Your task to perform on an android device: open app "VLC for Android" (install if not already installed) Image 0: 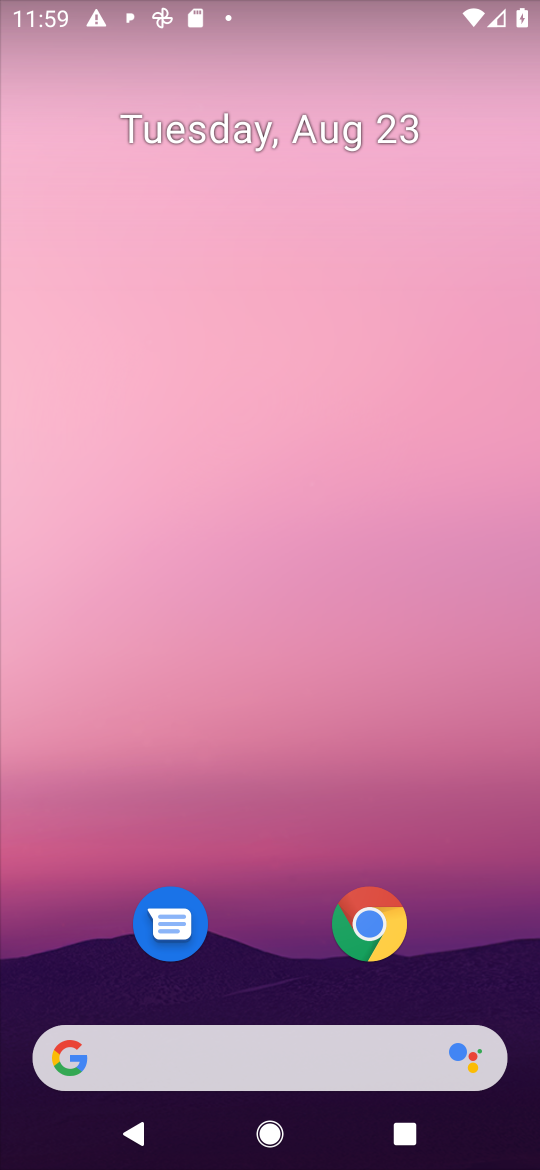
Step 0: press home button
Your task to perform on an android device: open app "VLC for Android" (install if not already installed) Image 1: 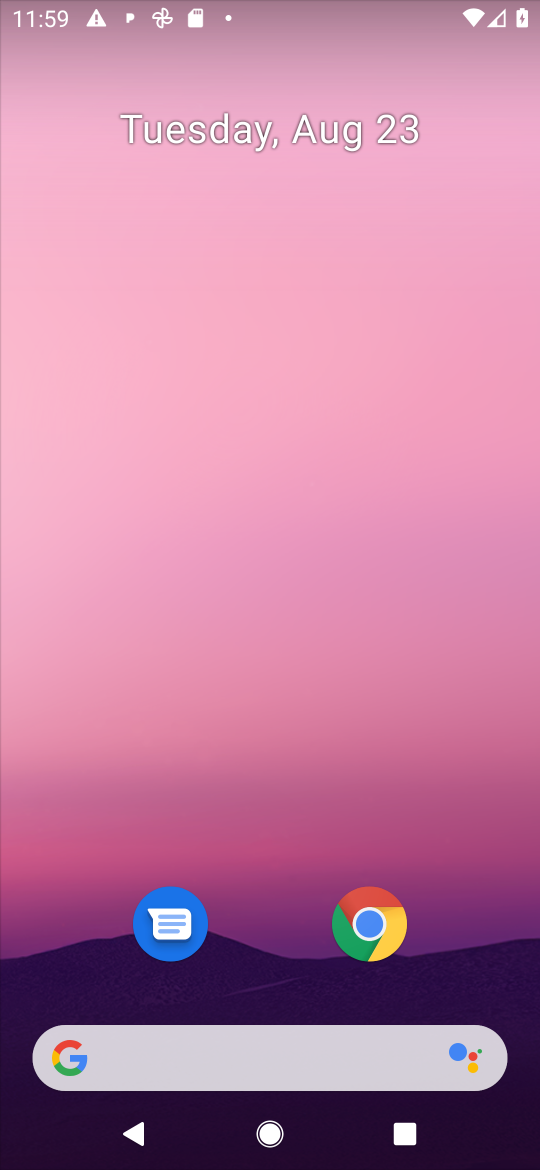
Step 1: drag from (476, 878) to (472, 159)
Your task to perform on an android device: open app "VLC for Android" (install if not already installed) Image 2: 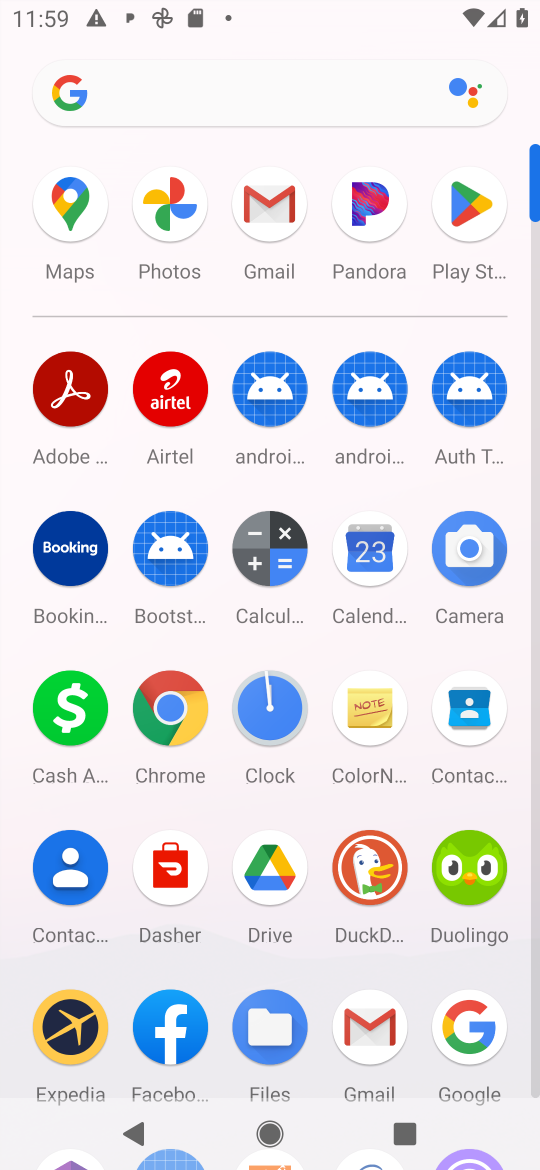
Step 2: click (454, 213)
Your task to perform on an android device: open app "VLC for Android" (install if not already installed) Image 3: 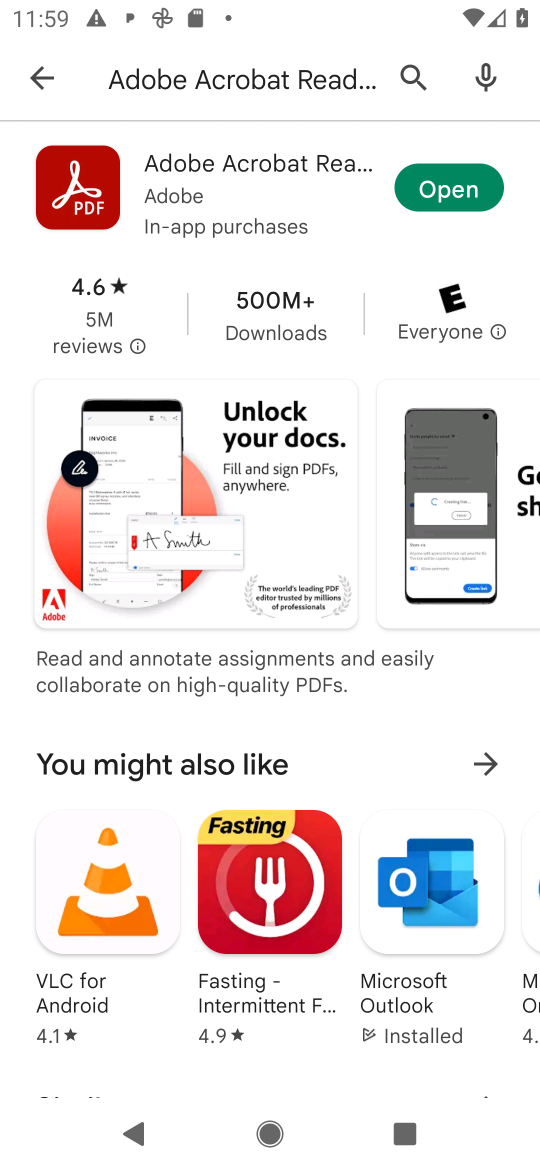
Step 3: press back button
Your task to perform on an android device: open app "VLC for Android" (install if not already installed) Image 4: 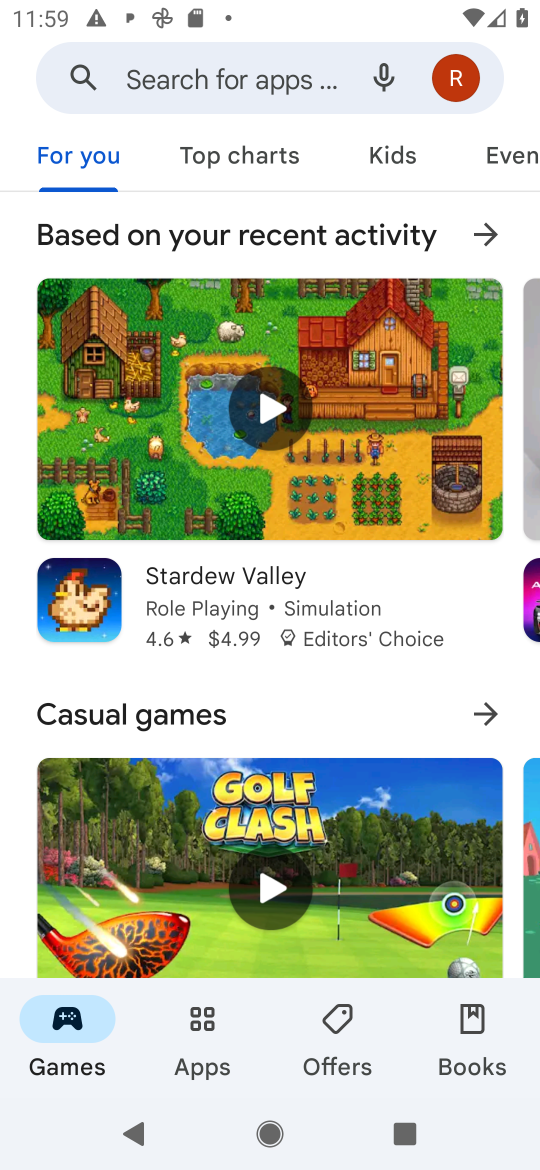
Step 4: click (289, 74)
Your task to perform on an android device: open app "VLC for Android" (install if not already installed) Image 5: 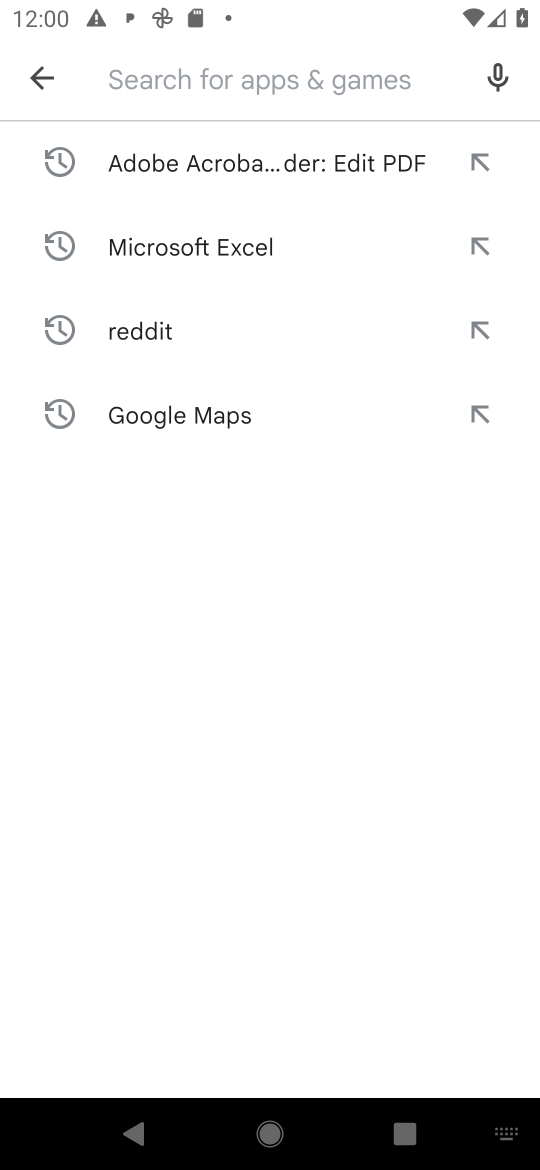
Step 5: type "VLC for Android"
Your task to perform on an android device: open app "VLC for Android" (install if not already installed) Image 6: 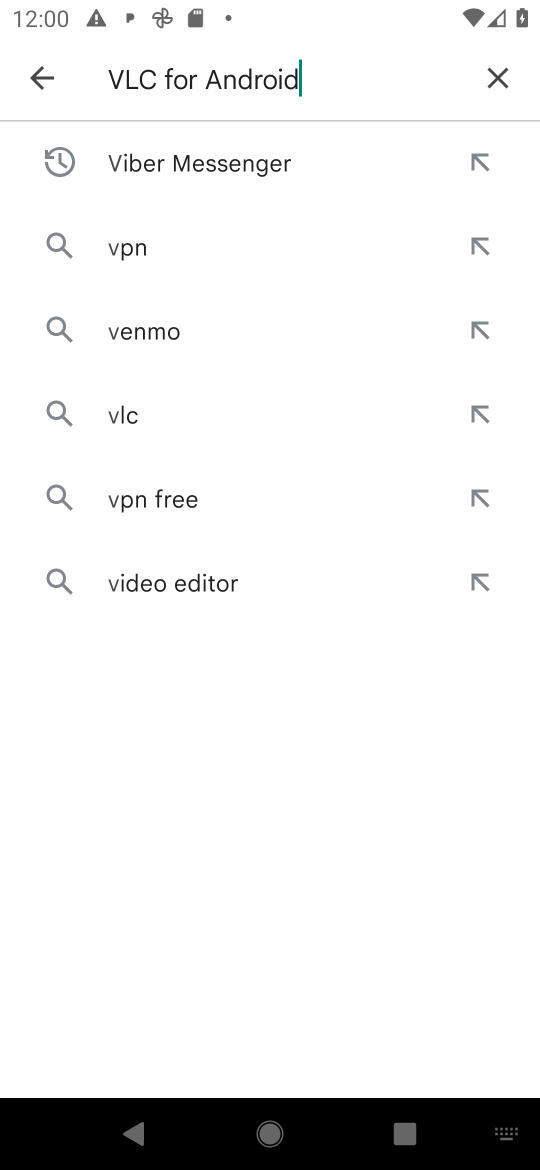
Step 6: press enter
Your task to perform on an android device: open app "VLC for Android" (install if not already installed) Image 7: 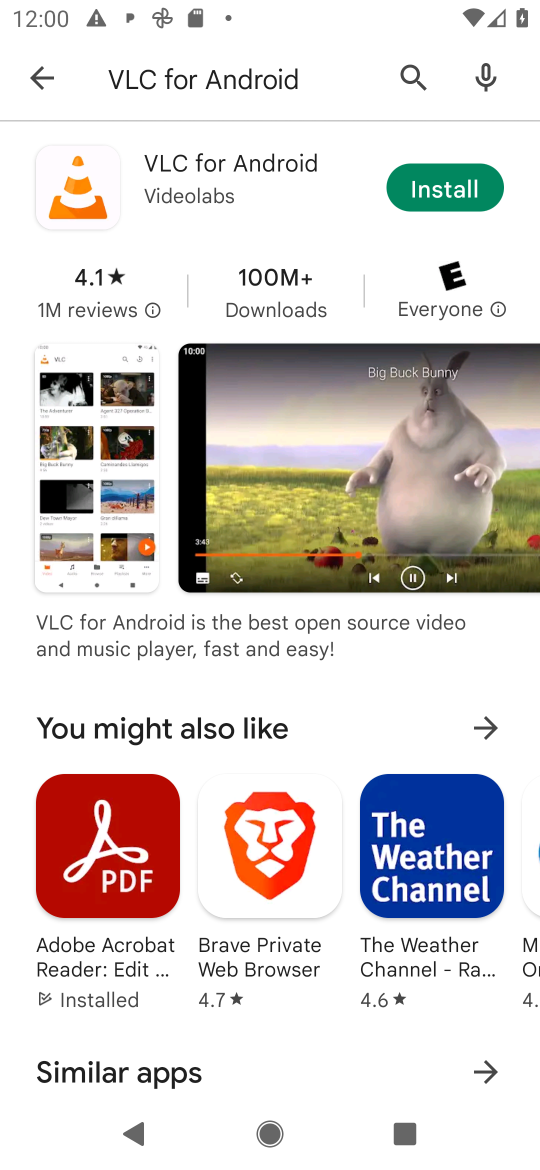
Step 7: click (463, 182)
Your task to perform on an android device: open app "VLC for Android" (install if not already installed) Image 8: 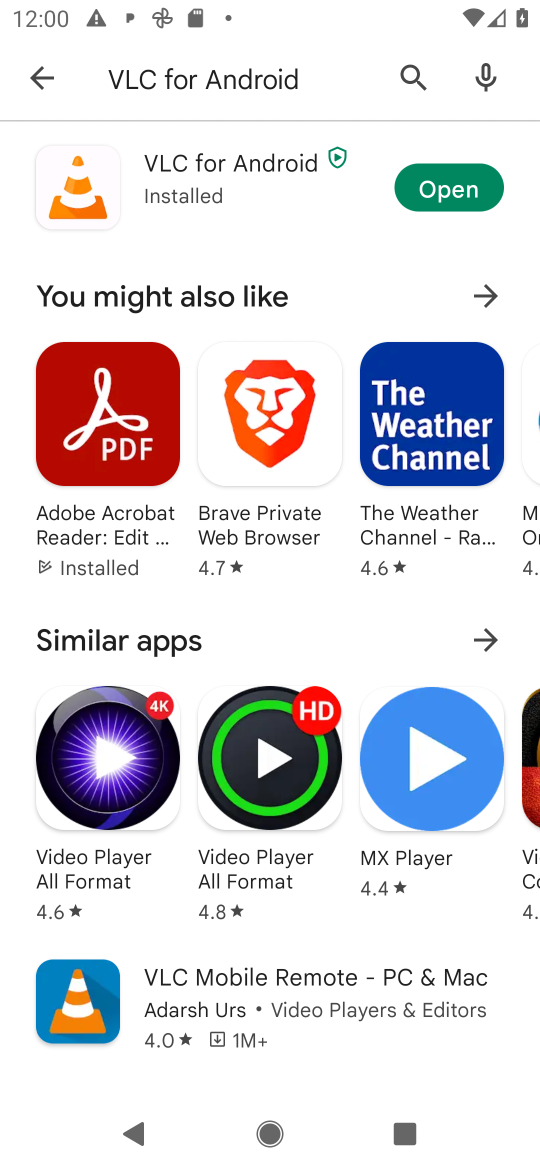
Step 8: click (489, 184)
Your task to perform on an android device: open app "VLC for Android" (install if not already installed) Image 9: 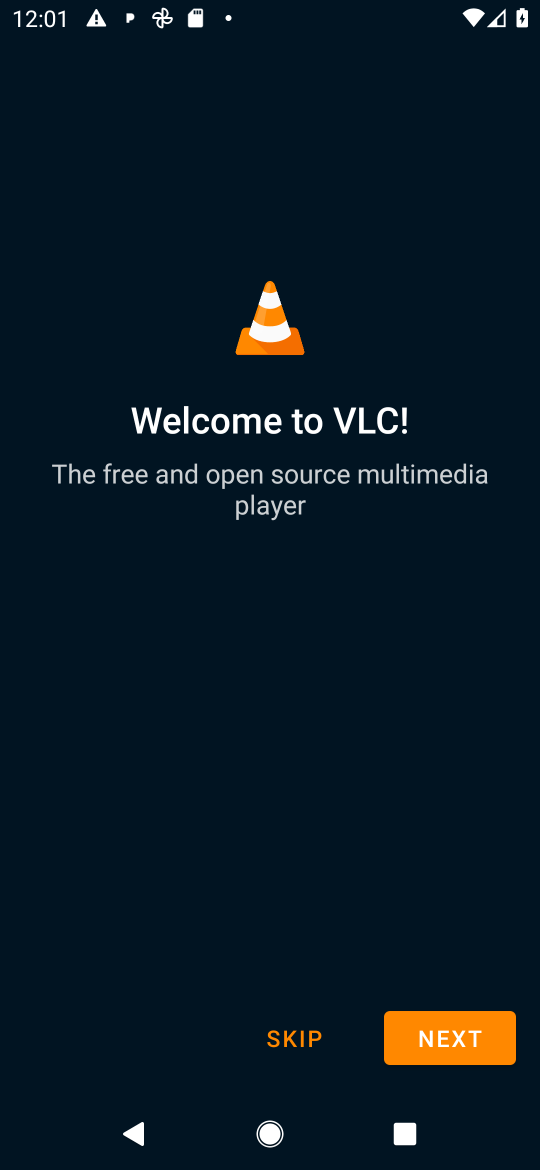
Step 9: task complete